Your task to perform on an android device: Play the last video I watched on Youtube Image 0: 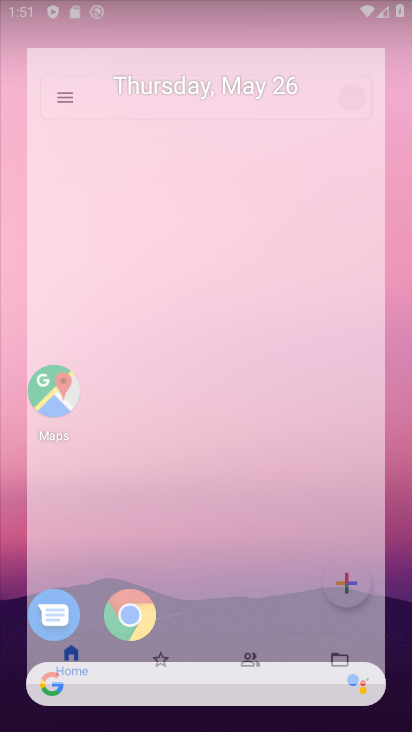
Step 0: press home button
Your task to perform on an android device: Play the last video I watched on Youtube Image 1: 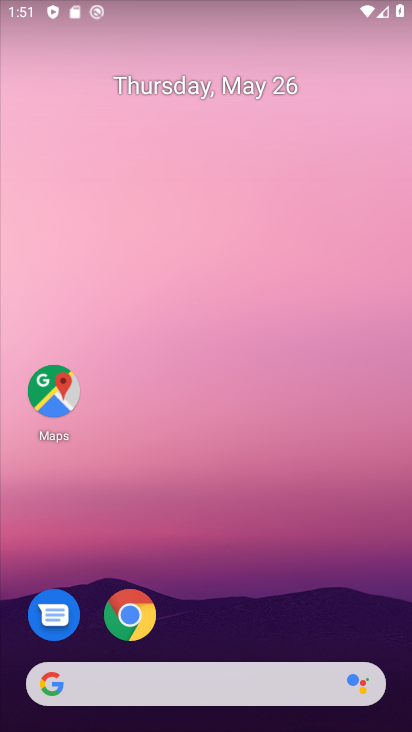
Step 1: drag from (217, 648) to (238, 29)
Your task to perform on an android device: Play the last video I watched on Youtube Image 2: 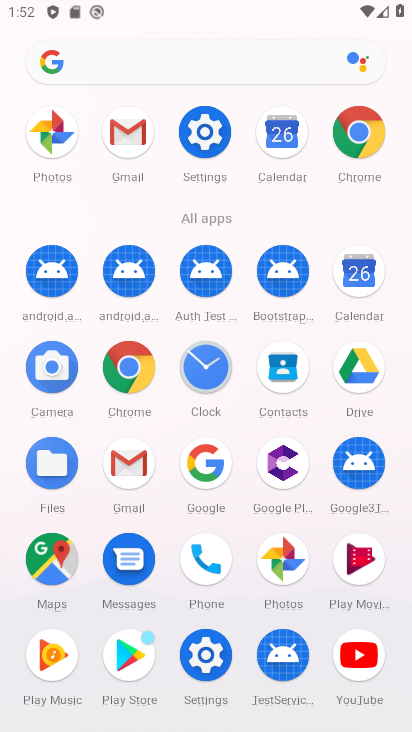
Step 2: click (356, 647)
Your task to perform on an android device: Play the last video I watched on Youtube Image 3: 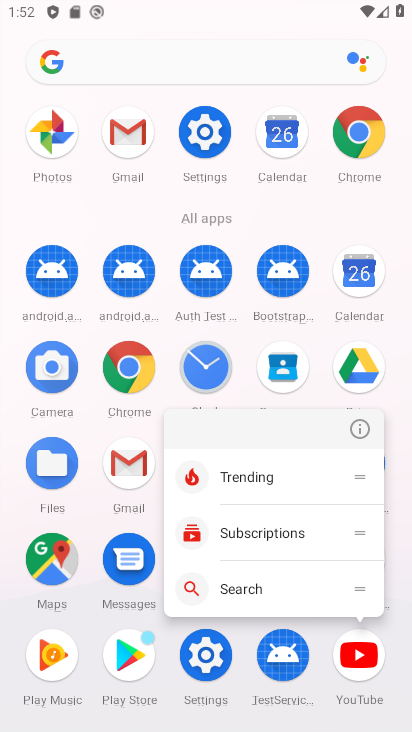
Step 3: click (356, 647)
Your task to perform on an android device: Play the last video I watched on Youtube Image 4: 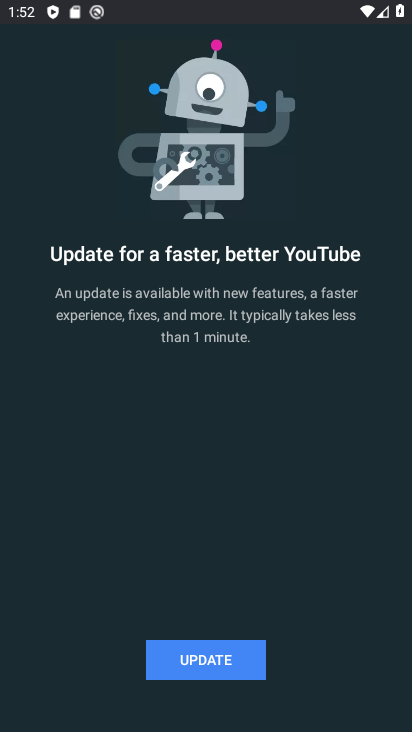
Step 4: click (200, 657)
Your task to perform on an android device: Play the last video I watched on Youtube Image 5: 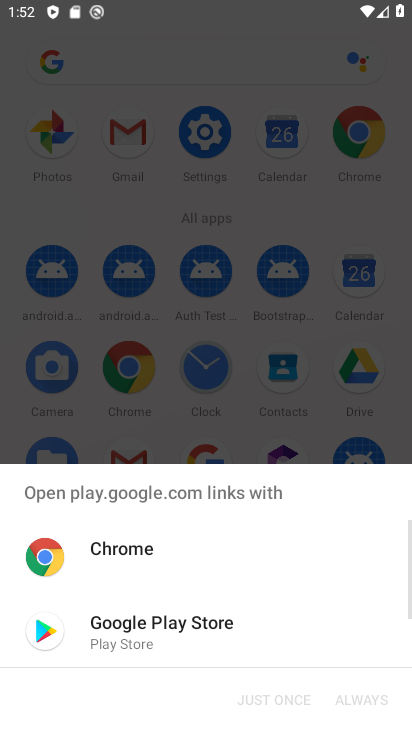
Step 5: click (113, 625)
Your task to perform on an android device: Play the last video I watched on Youtube Image 6: 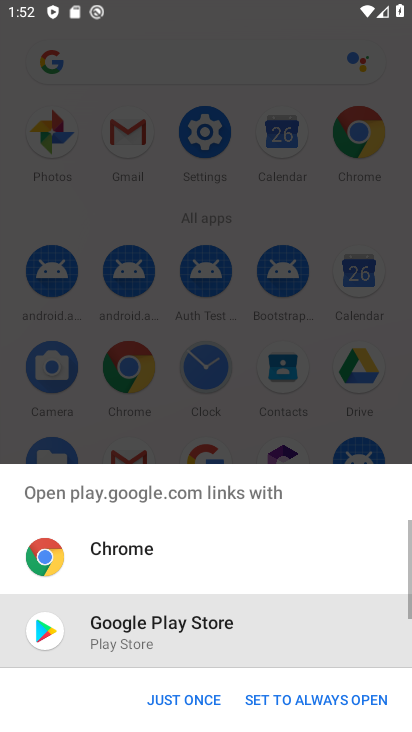
Step 6: click (180, 701)
Your task to perform on an android device: Play the last video I watched on Youtube Image 7: 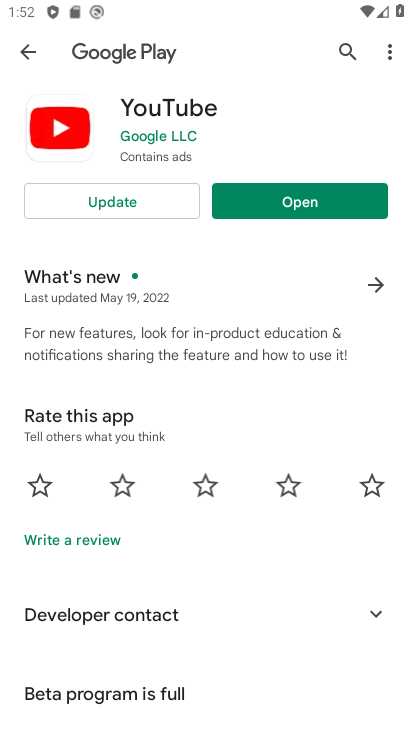
Step 7: click (113, 196)
Your task to perform on an android device: Play the last video I watched on Youtube Image 8: 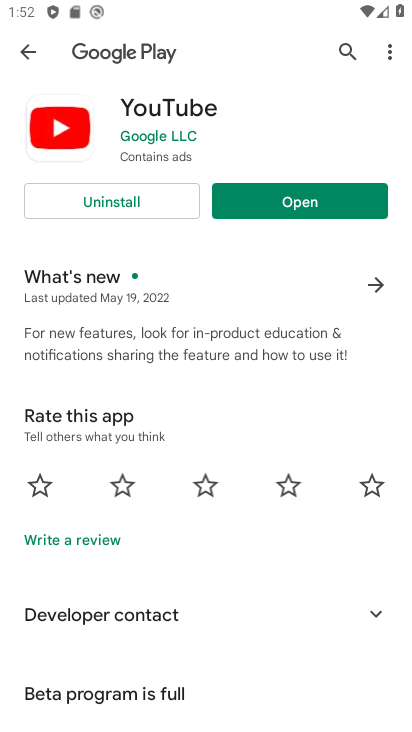
Step 8: click (303, 202)
Your task to perform on an android device: Play the last video I watched on Youtube Image 9: 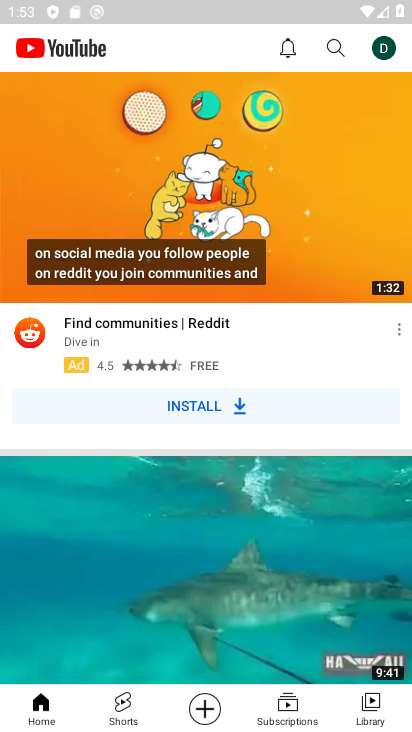
Step 9: drag from (127, 639) to (159, 146)
Your task to perform on an android device: Play the last video I watched on Youtube Image 10: 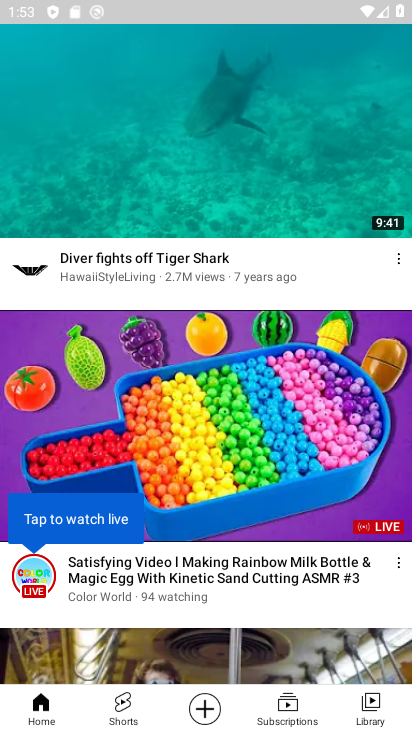
Step 10: click (365, 700)
Your task to perform on an android device: Play the last video I watched on Youtube Image 11: 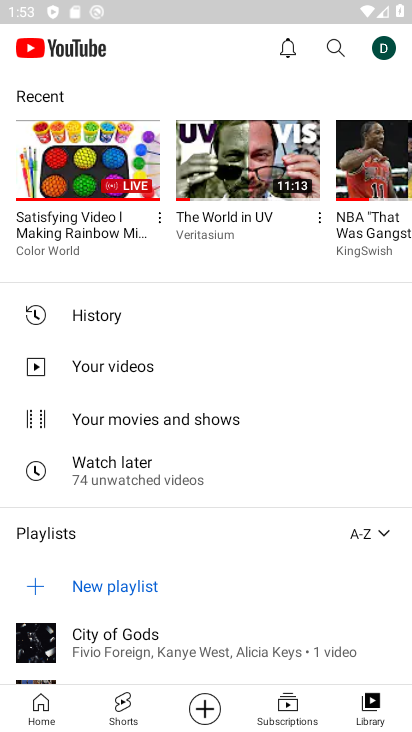
Step 11: click (77, 168)
Your task to perform on an android device: Play the last video I watched on Youtube Image 12: 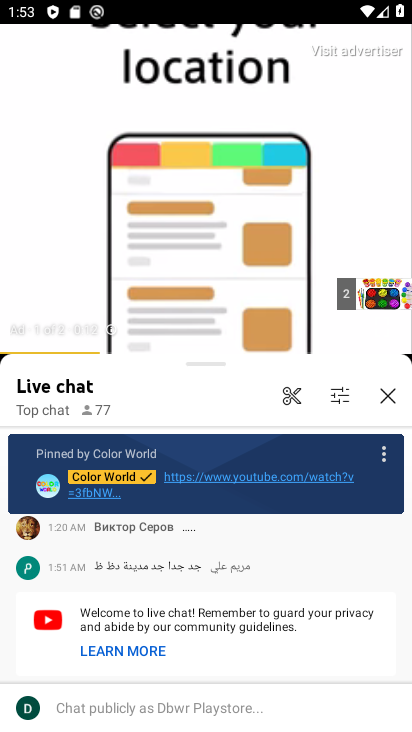
Step 12: task complete